Your task to perform on an android device: Clear the cart on amazon.com. Search for lg ultragear on amazon.com, select the first entry, and add it to the cart. Image 0: 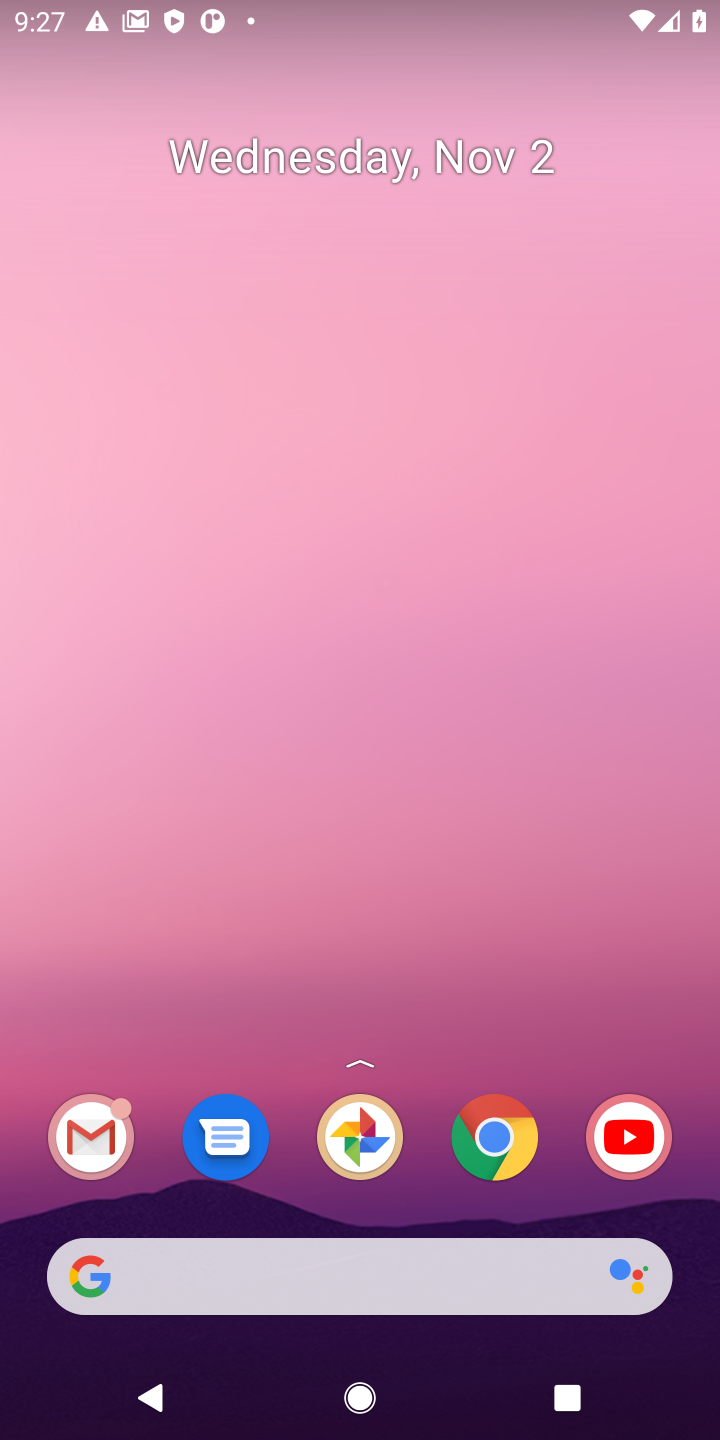
Step 0: click (499, 1134)
Your task to perform on an android device: Clear the cart on amazon.com. Search for lg ultragear on amazon.com, select the first entry, and add it to the cart. Image 1: 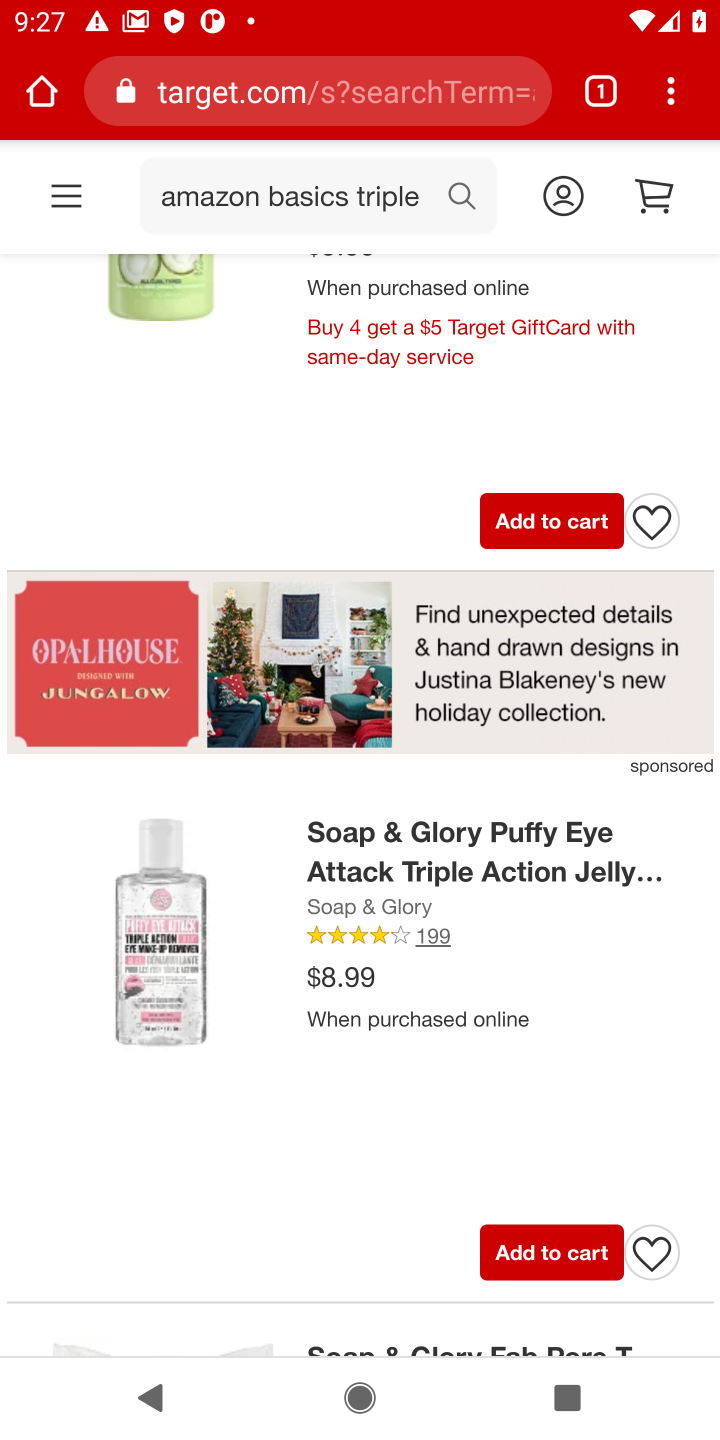
Step 1: click (362, 66)
Your task to perform on an android device: Clear the cart on amazon.com. Search for lg ultragear on amazon.com, select the first entry, and add it to the cart. Image 2: 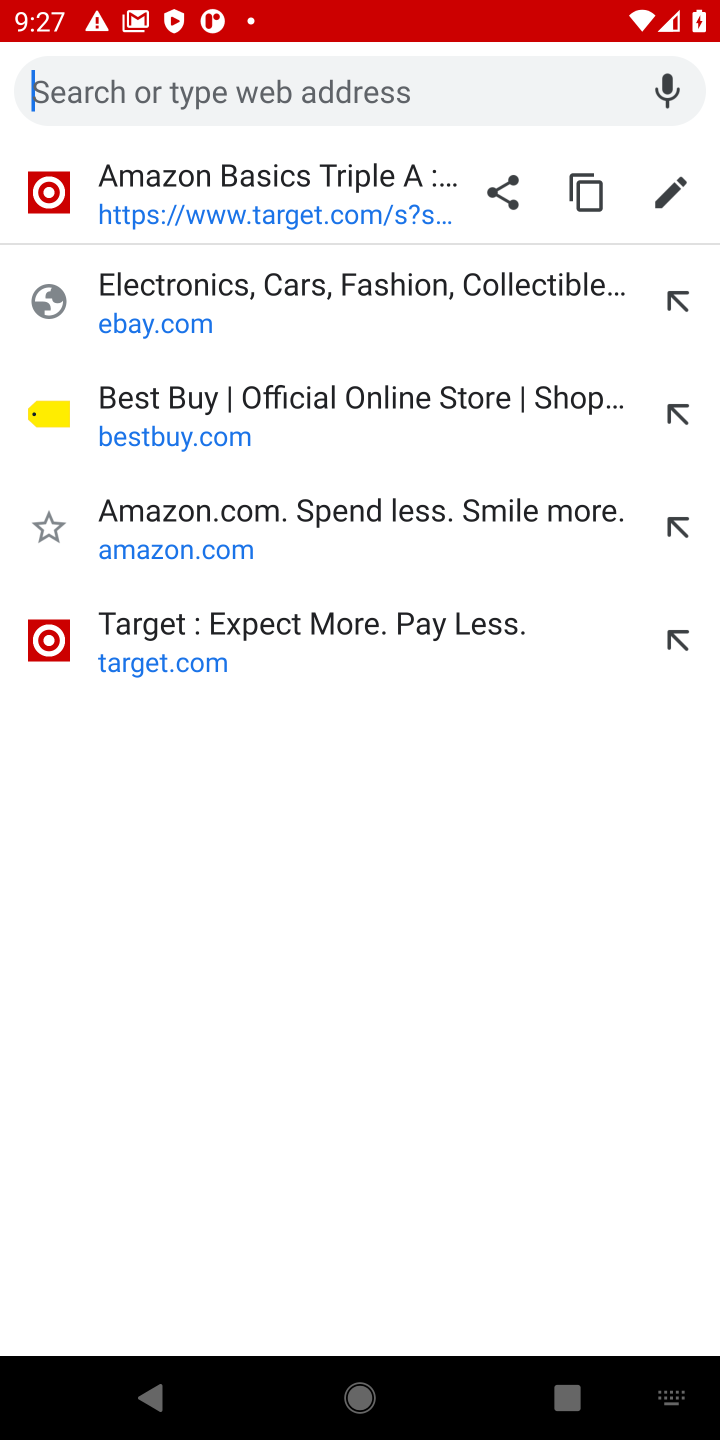
Step 2: type "amazon"
Your task to perform on an android device: Clear the cart on amazon.com. Search for lg ultragear on amazon.com, select the first entry, and add it to the cart. Image 3: 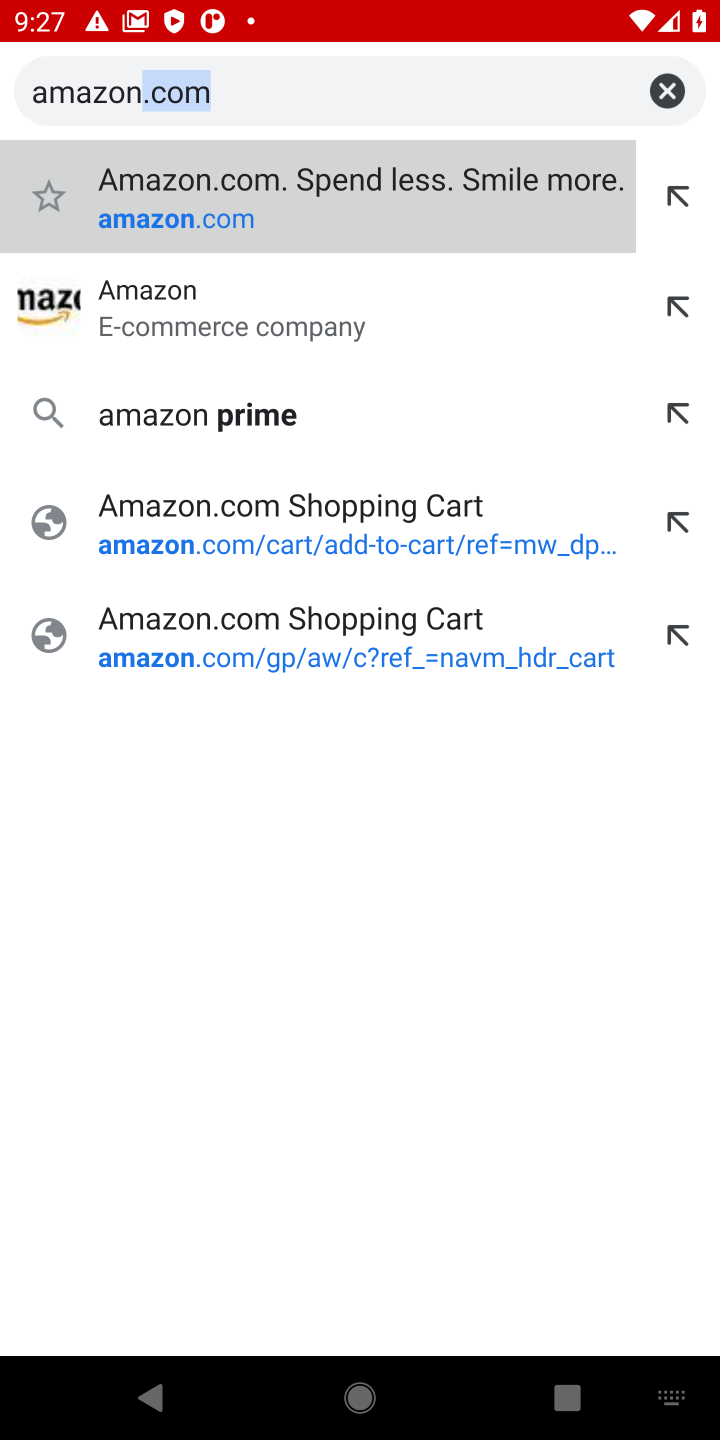
Step 3: click (142, 309)
Your task to perform on an android device: Clear the cart on amazon.com. Search for lg ultragear on amazon.com, select the first entry, and add it to the cart. Image 4: 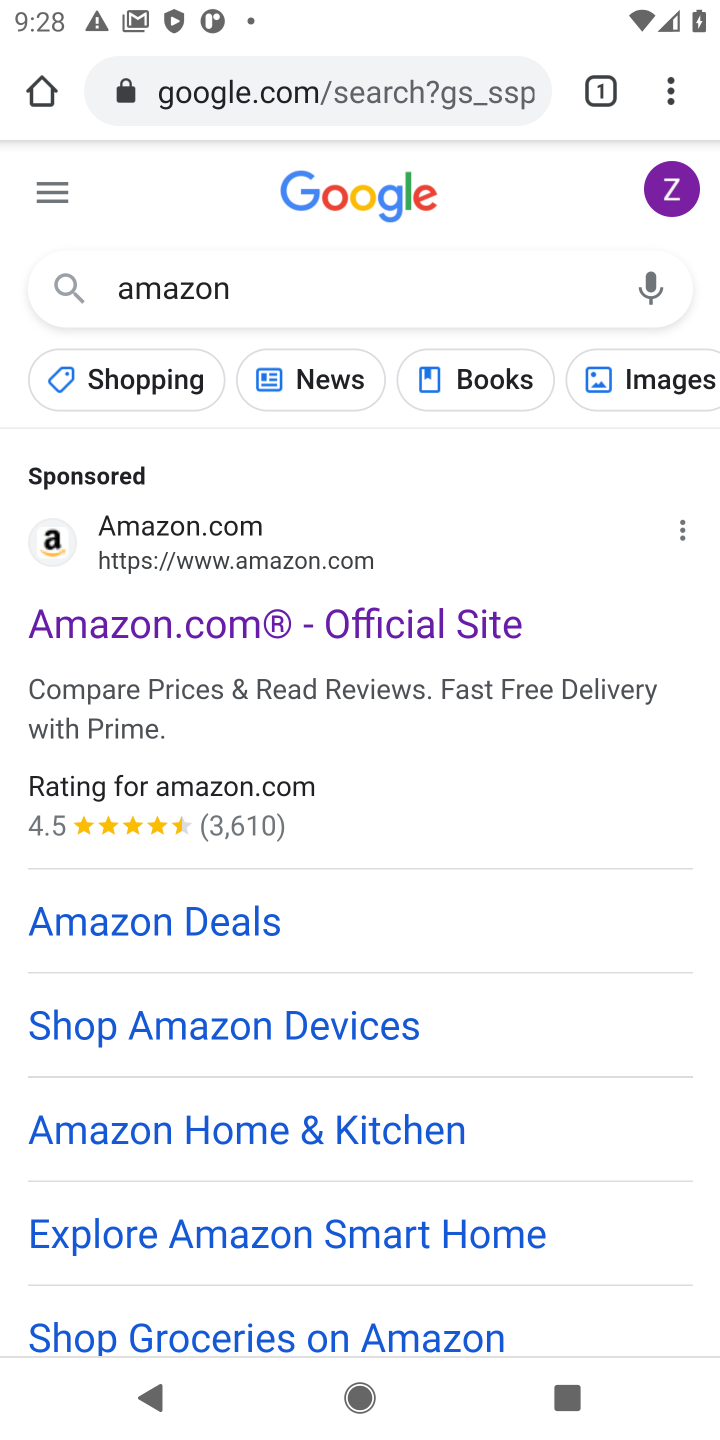
Step 4: click (135, 650)
Your task to perform on an android device: Clear the cart on amazon.com. Search for lg ultragear on amazon.com, select the first entry, and add it to the cart. Image 5: 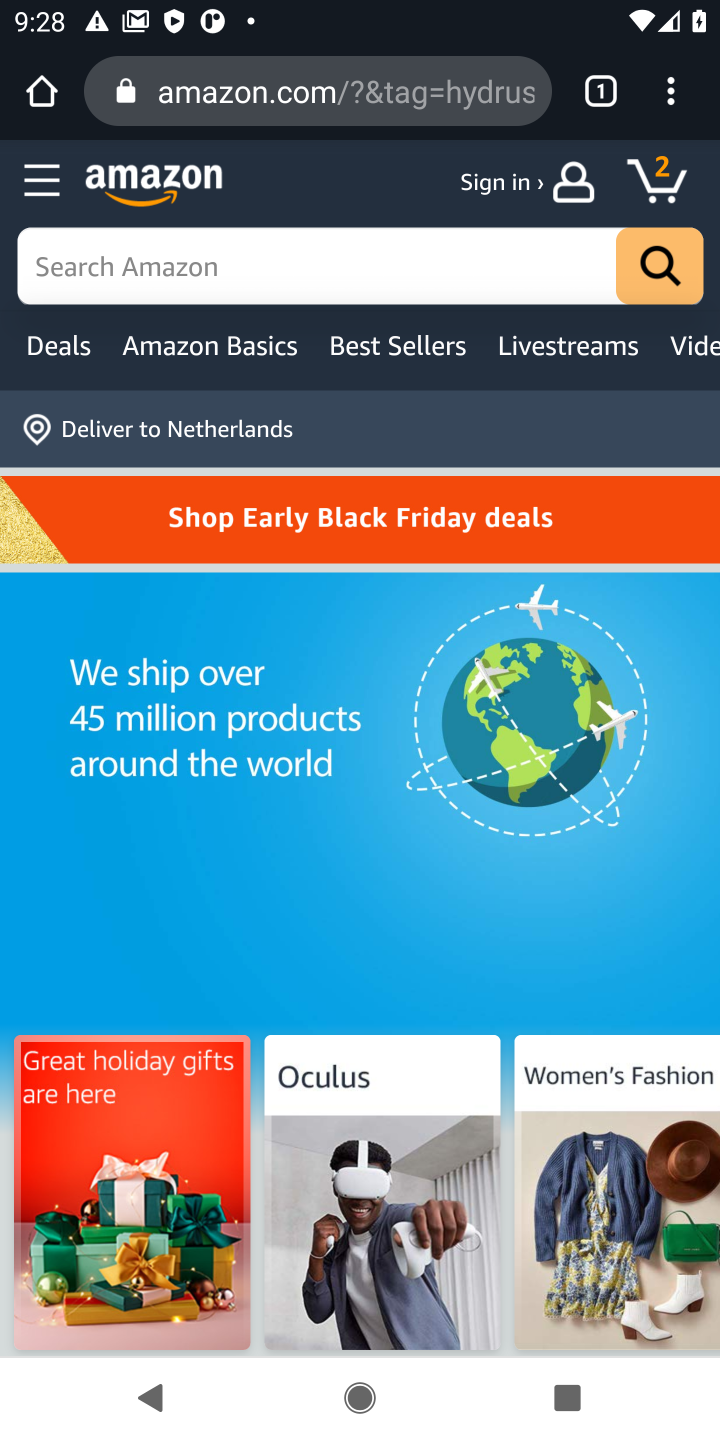
Step 5: click (657, 171)
Your task to perform on an android device: Clear the cart on amazon.com. Search for lg ultragear on amazon.com, select the first entry, and add it to the cart. Image 6: 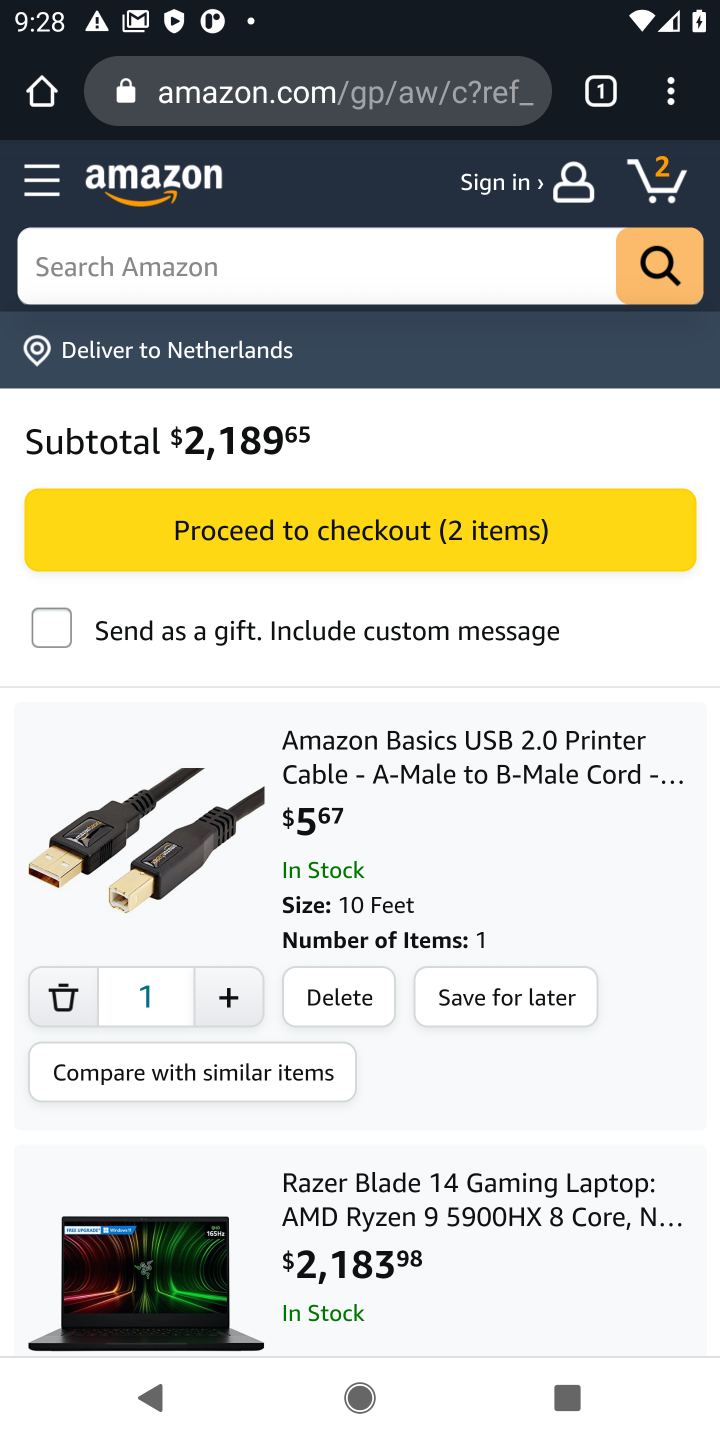
Step 6: click (664, 178)
Your task to perform on an android device: Clear the cart on amazon.com. Search for lg ultragear on amazon.com, select the first entry, and add it to the cart. Image 7: 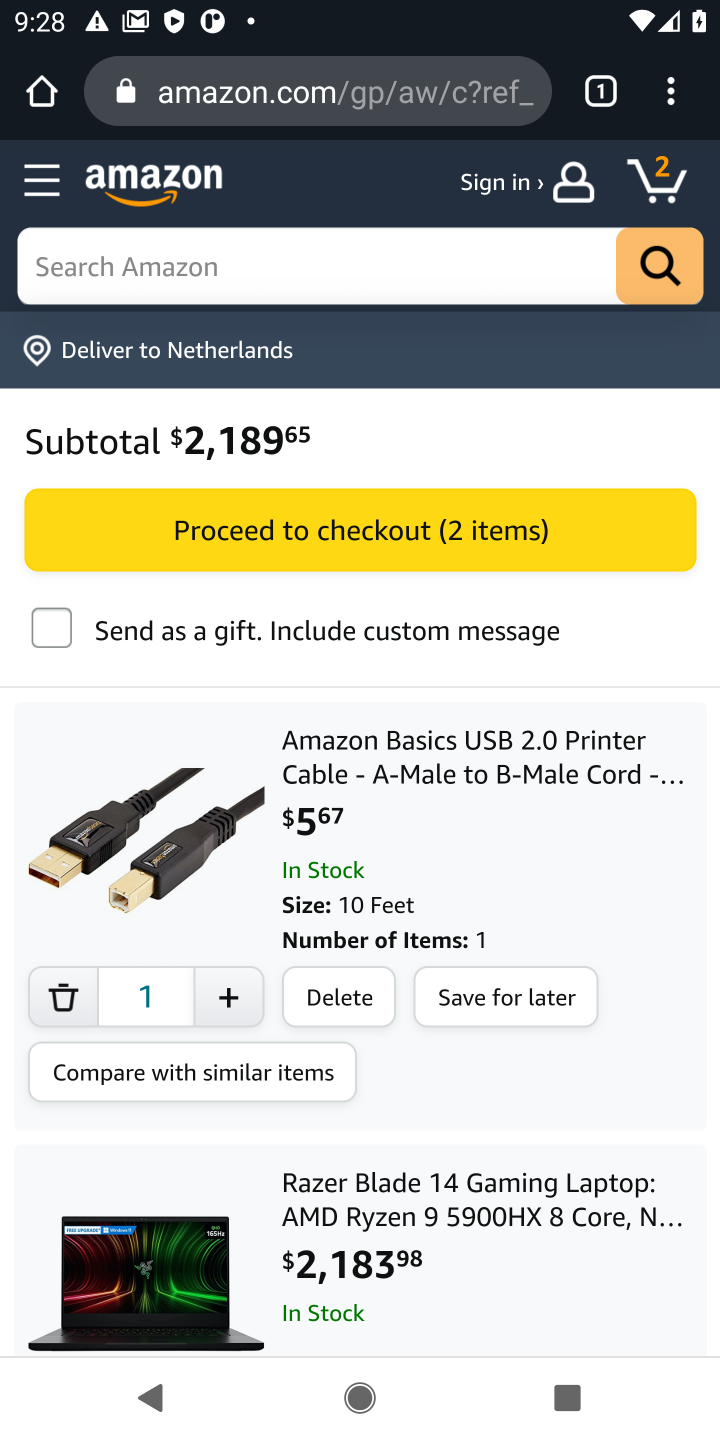
Step 7: click (63, 994)
Your task to perform on an android device: Clear the cart on amazon.com. Search for lg ultragear on amazon.com, select the first entry, and add it to the cart. Image 8: 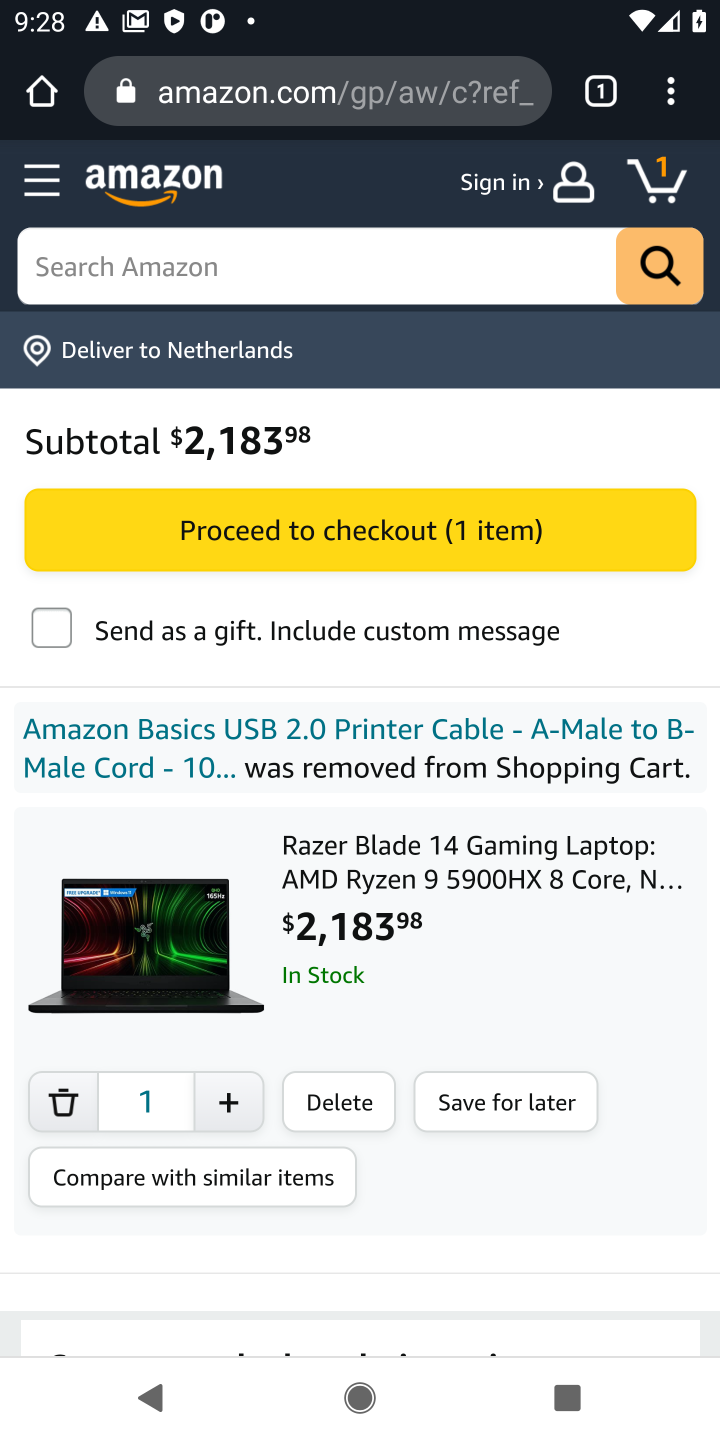
Step 8: click (59, 1093)
Your task to perform on an android device: Clear the cart on amazon.com. Search for lg ultragear on amazon.com, select the first entry, and add it to the cart. Image 9: 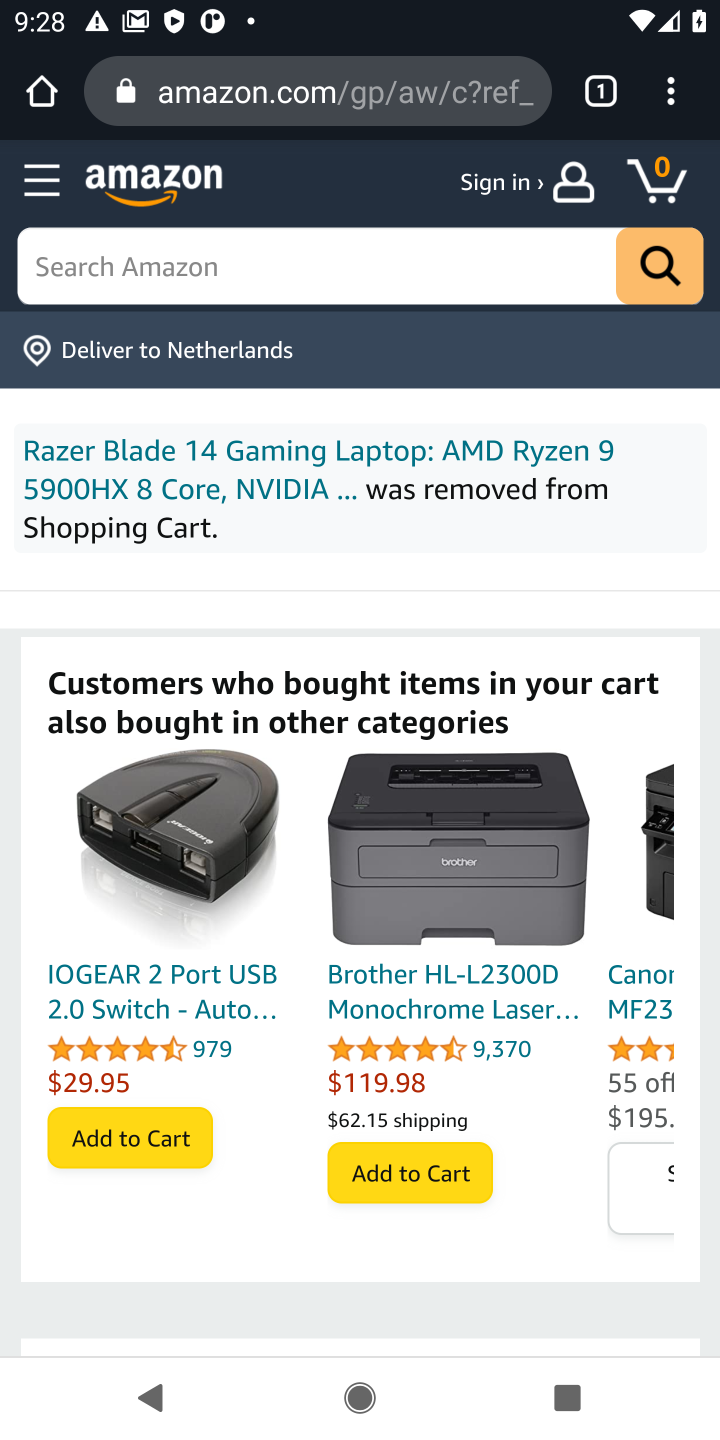
Step 9: click (195, 262)
Your task to perform on an android device: Clear the cart on amazon.com. Search for lg ultragear on amazon.com, select the first entry, and add it to the cart. Image 10: 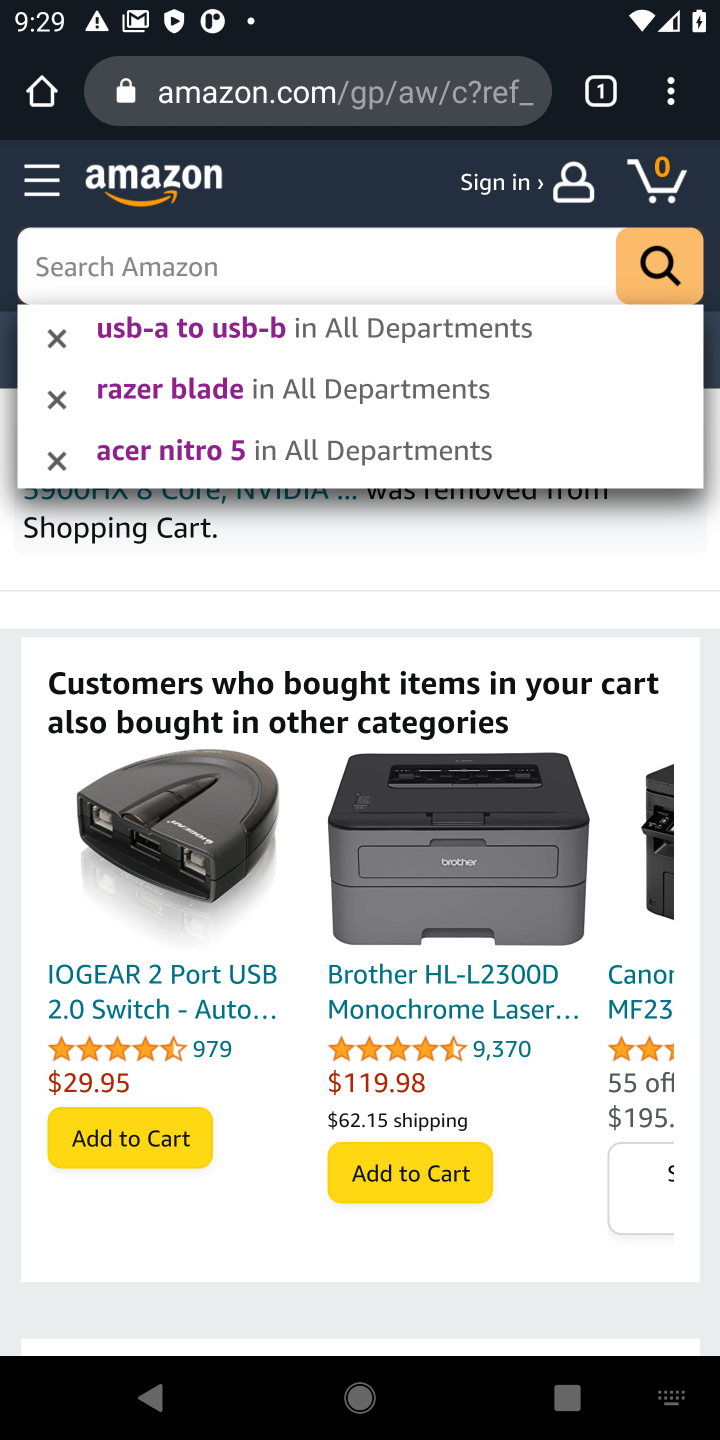
Step 10: type "lg ultragear"
Your task to perform on an android device: Clear the cart on amazon.com. Search for lg ultragear on amazon.com, select the first entry, and add it to the cart. Image 11: 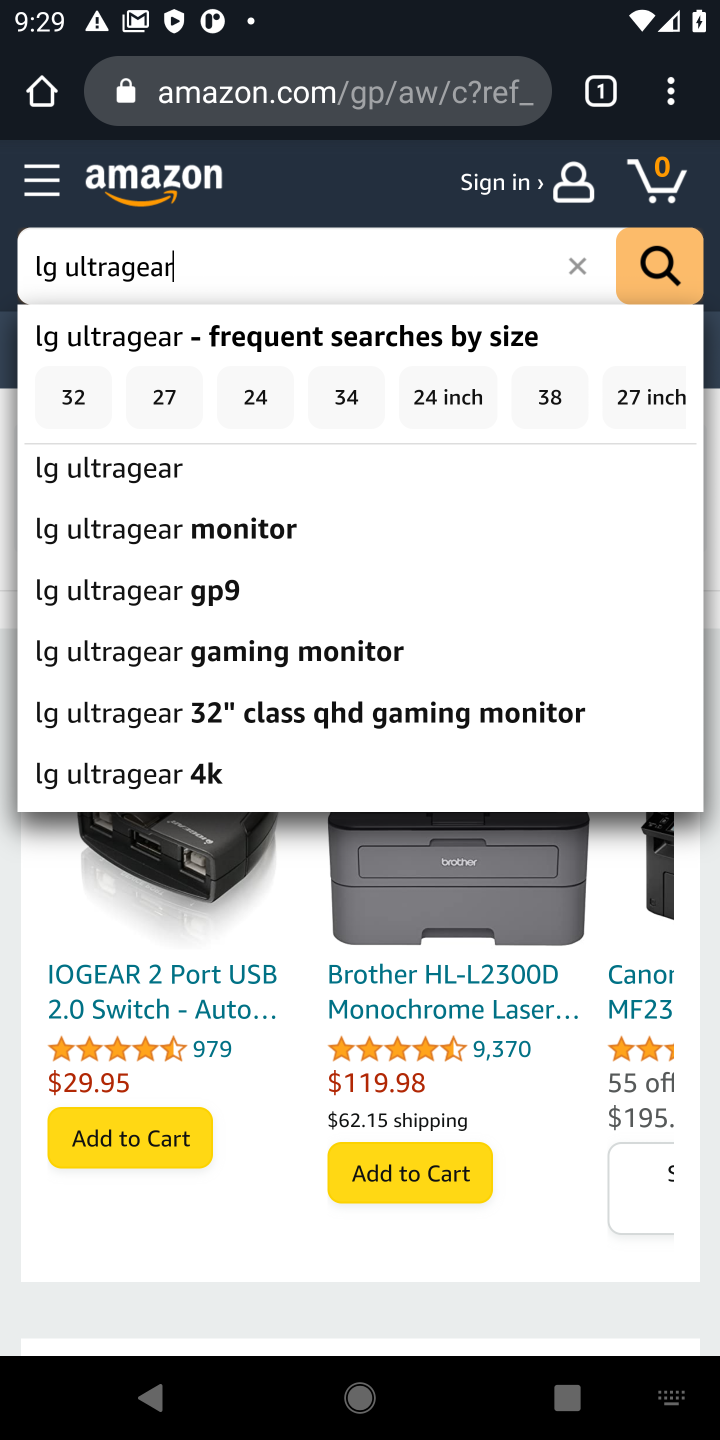
Step 11: click (105, 462)
Your task to perform on an android device: Clear the cart on amazon.com. Search for lg ultragear on amazon.com, select the first entry, and add it to the cart. Image 12: 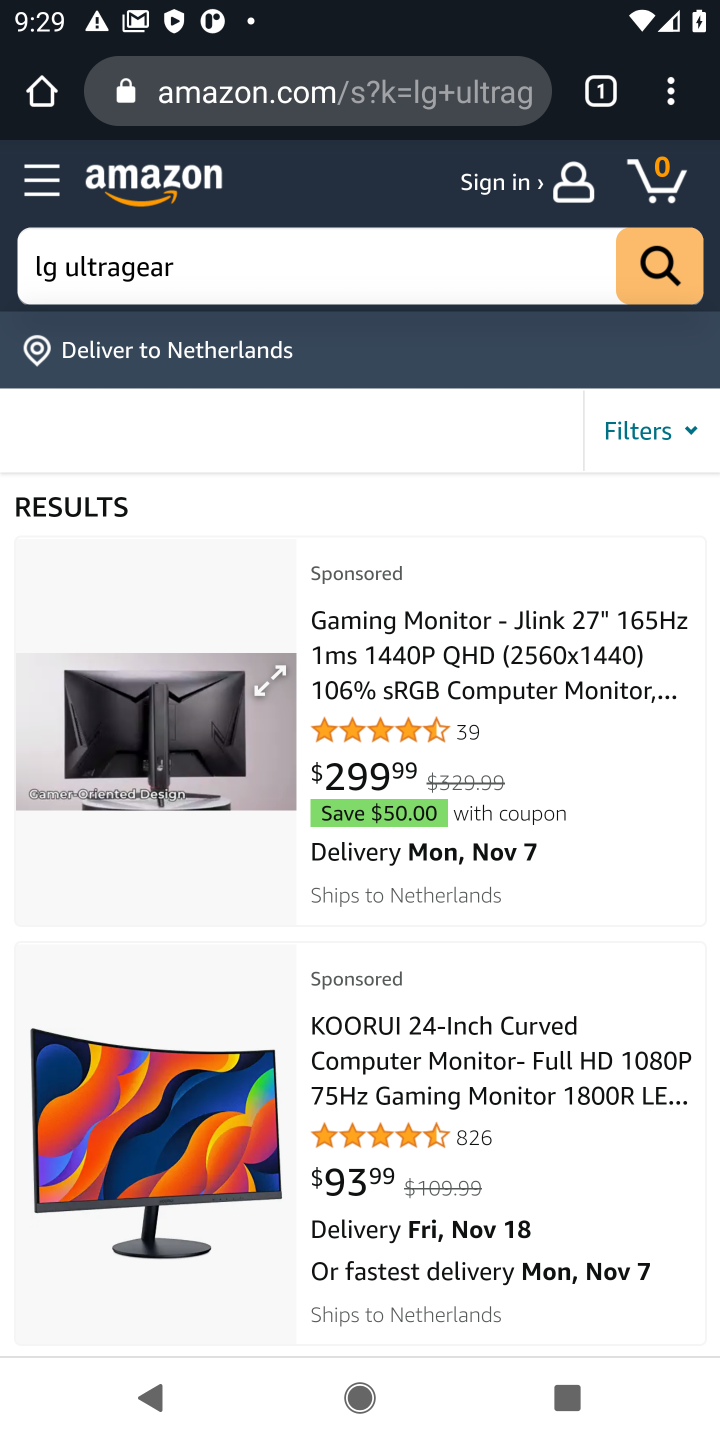
Step 12: drag from (576, 923) to (558, 502)
Your task to perform on an android device: Clear the cart on amazon.com. Search for lg ultragear on amazon.com, select the first entry, and add it to the cart. Image 13: 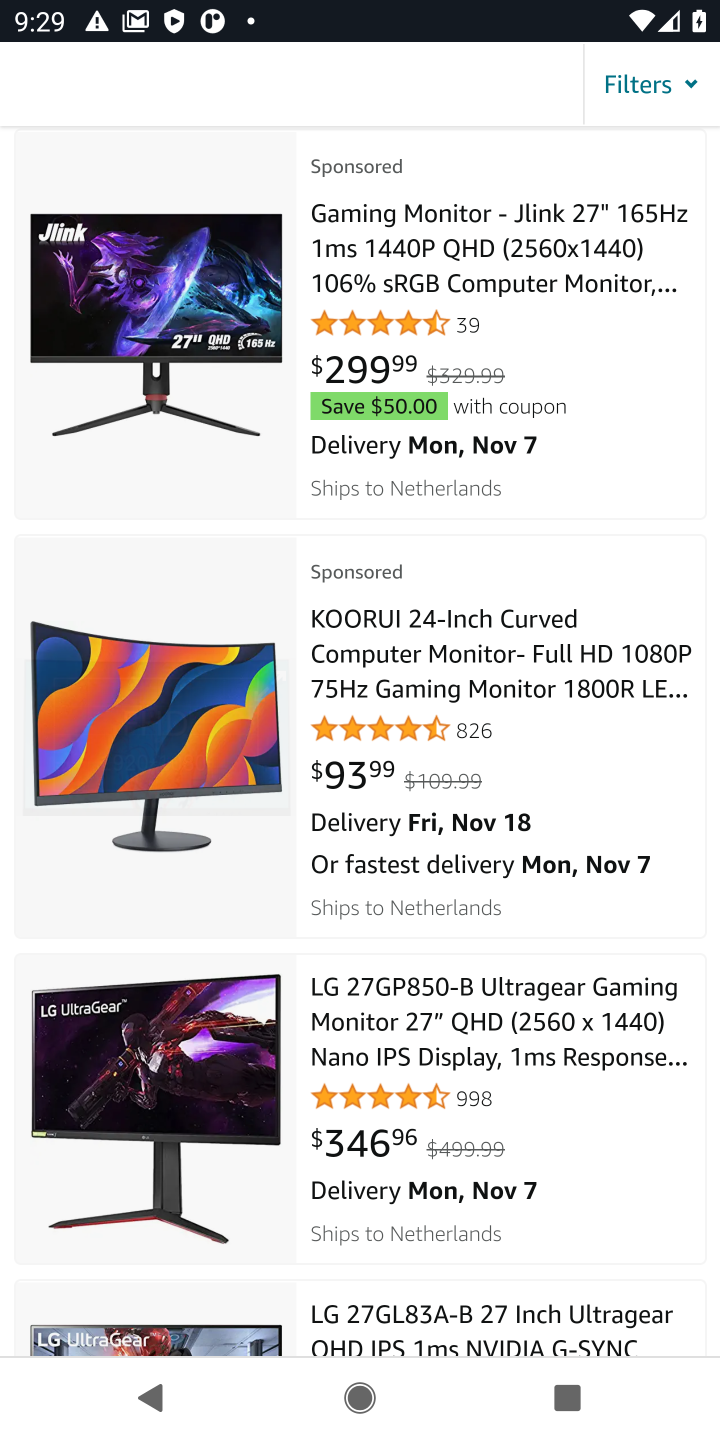
Step 13: drag from (547, 926) to (620, 510)
Your task to perform on an android device: Clear the cart on amazon.com. Search for lg ultragear on amazon.com, select the first entry, and add it to the cart. Image 14: 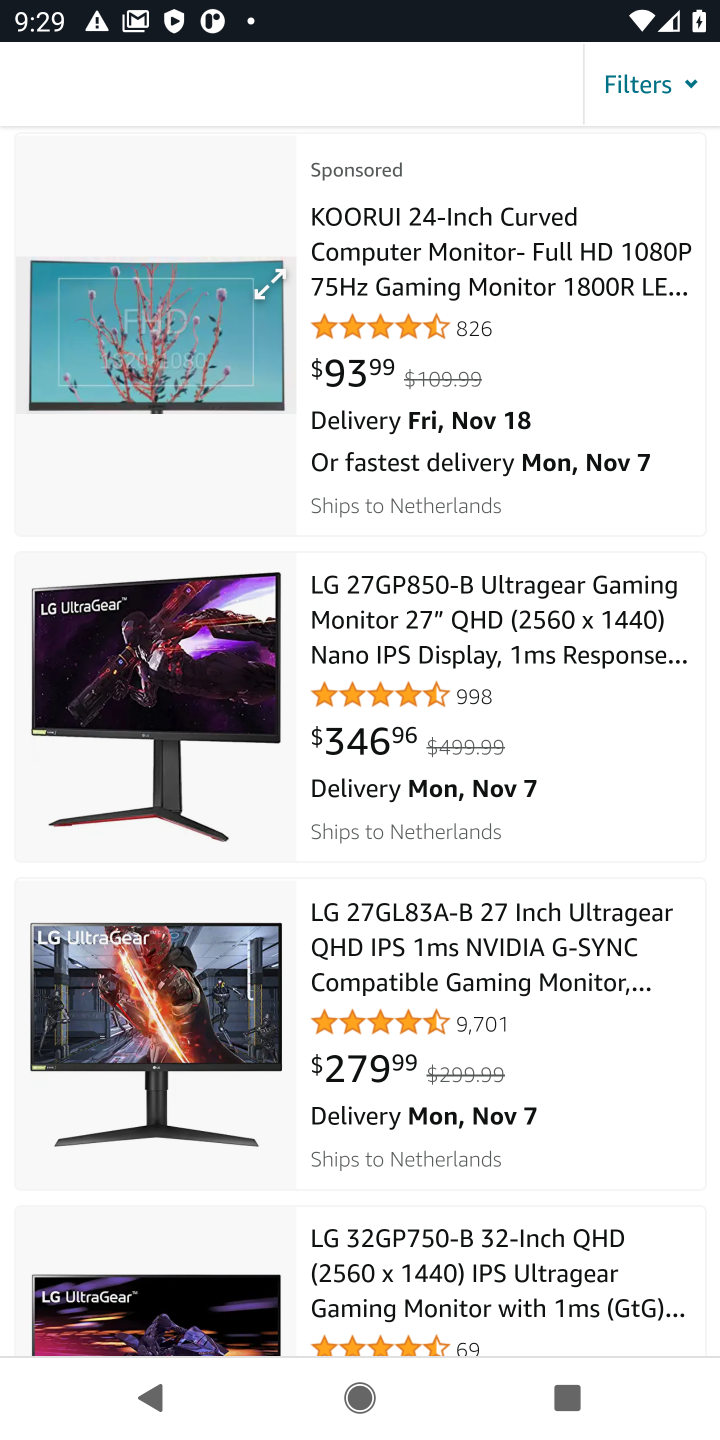
Step 14: drag from (585, 845) to (605, 490)
Your task to perform on an android device: Clear the cart on amazon.com. Search for lg ultragear on amazon.com, select the first entry, and add it to the cart. Image 15: 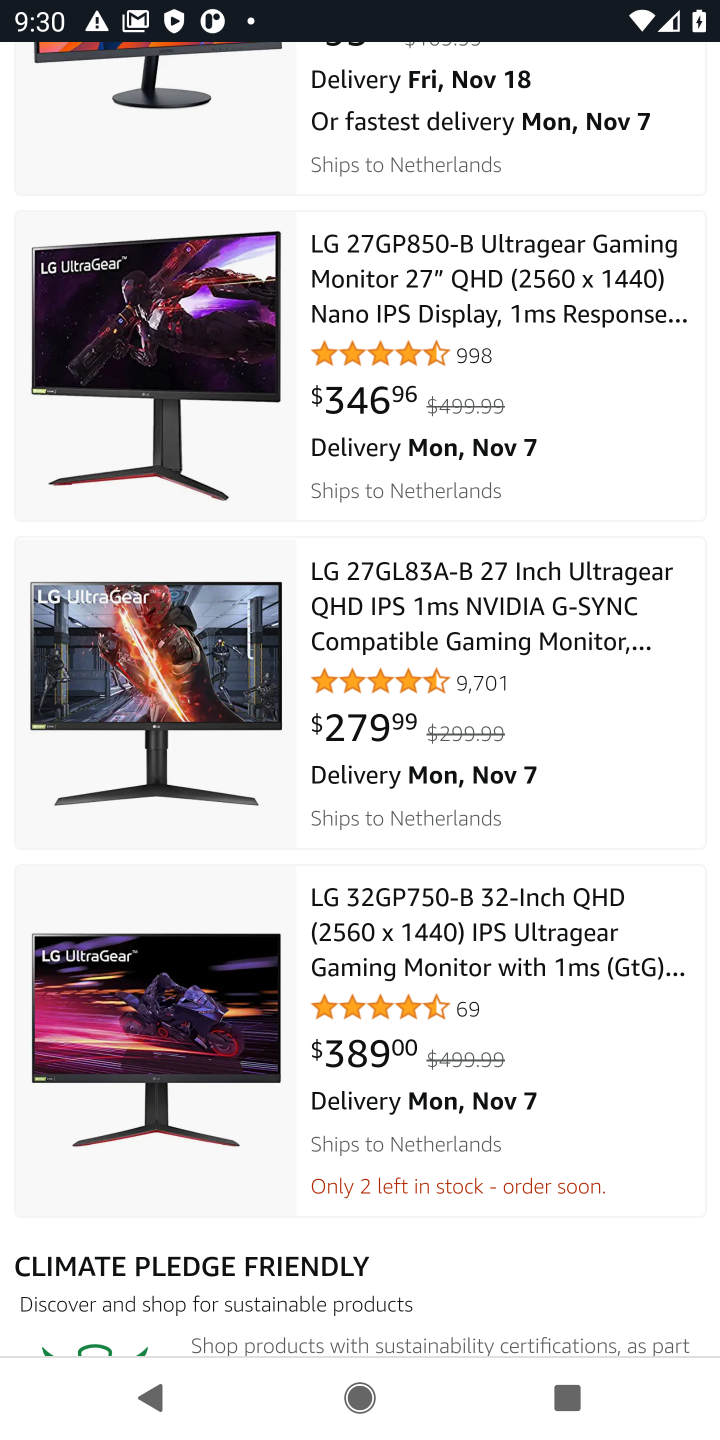
Step 15: drag from (609, 1203) to (569, 323)
Your task to perform on an android device: Clear the cart on amazon.com. Search for lg ultragear on amazon.com, select the first entry, and add it to the cart. Image 16: 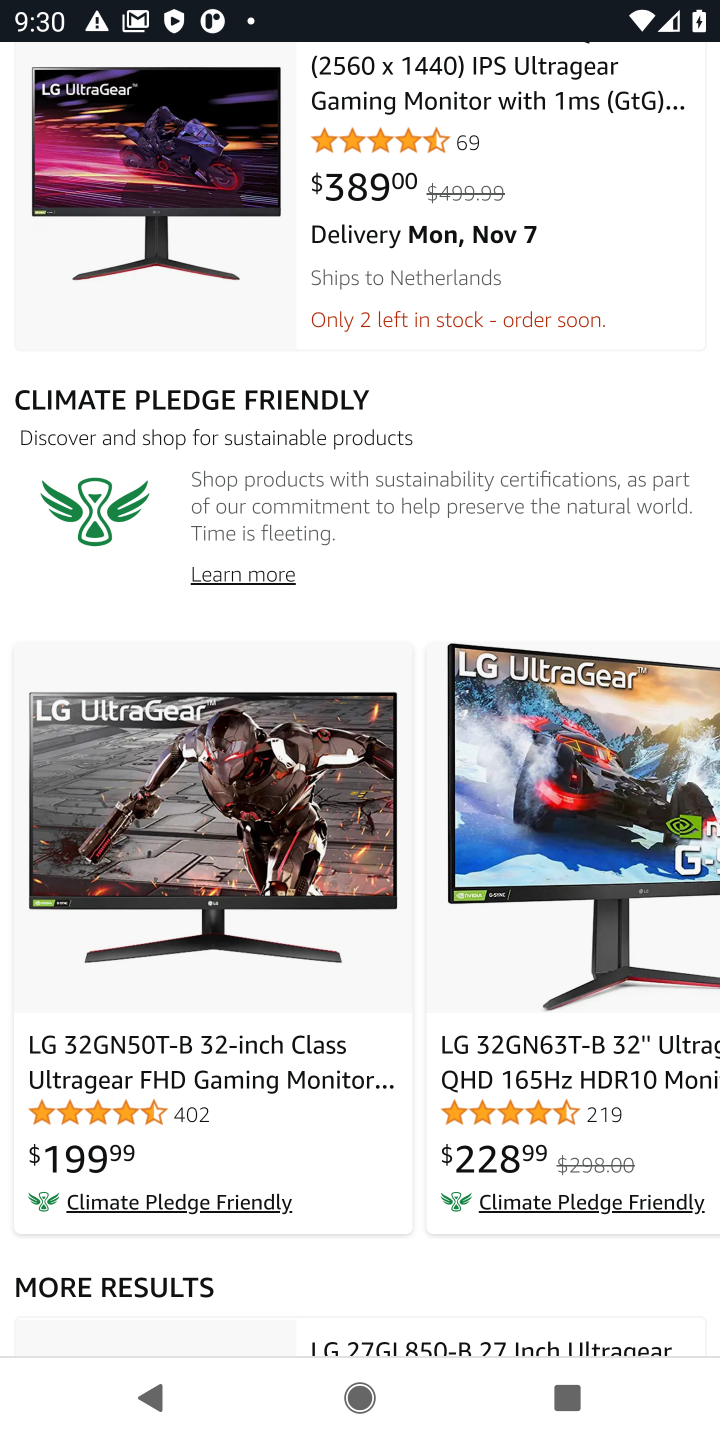
Step 16: drag from (402, 276) to (360, 723)
Your task to perform on an android device: Clear the cart on amazon.com. Search for lg ultragear on amazon.com, select the first entry, and add it to the cart. Image 17: 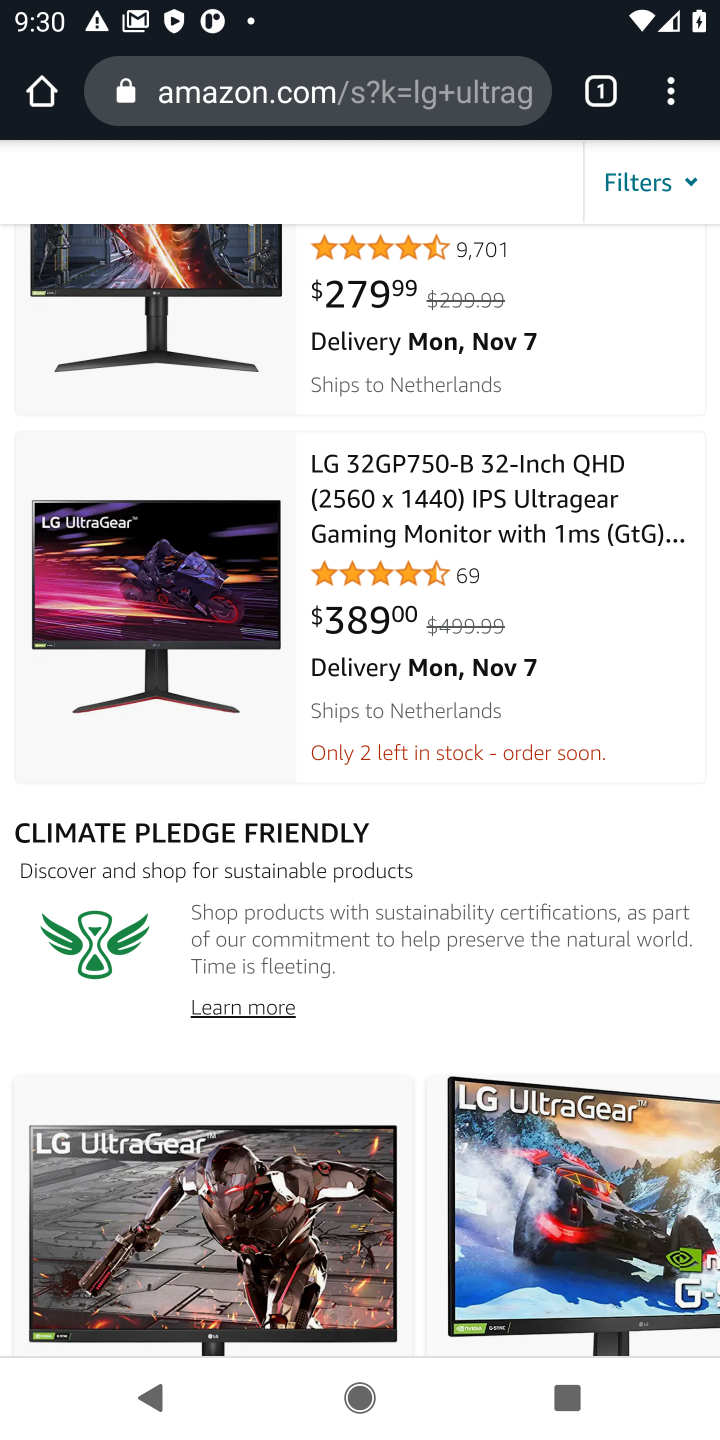
Step 17: drag from (388, 423) to (356, 850)
Your task to perform on an android device: Clear the cart on amazon.com. Search for lg ultragear on amazon.com, select the first entry, and add it to the cart. Image 18: 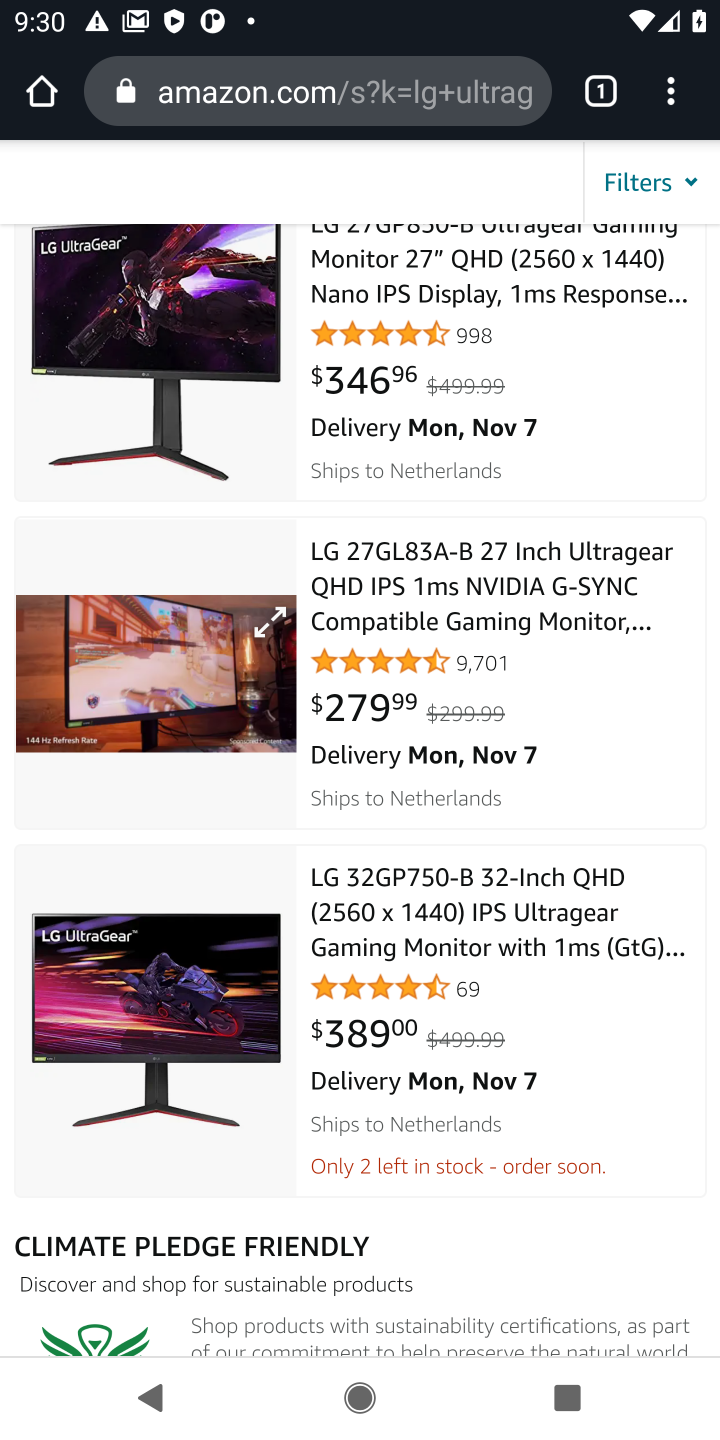
Step 18: click (380, 587)
Your task to perform on an android device: Clear the cart on amazon.com. Search for lg ultragear on amazon.com, select the first entry, and add it to the cart. Image 19: 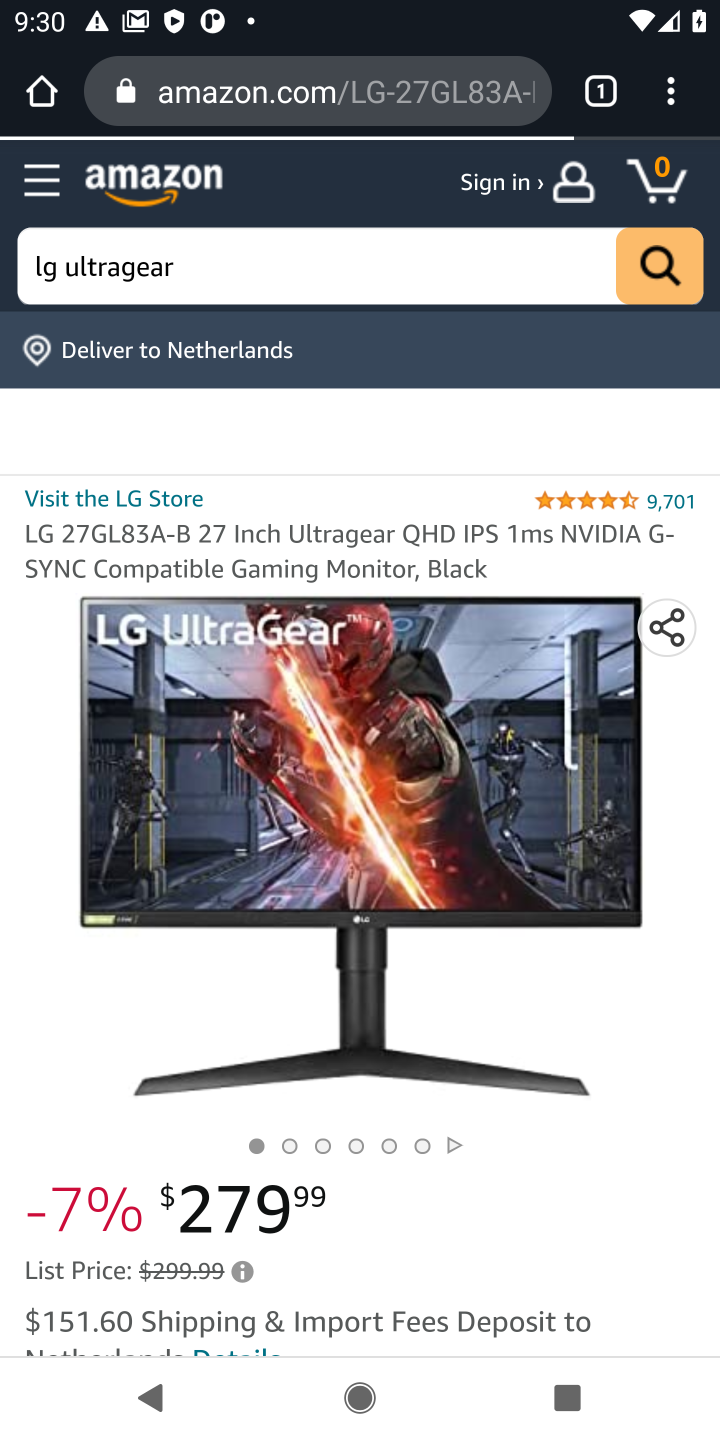
Step 19: drag from (502, 1282) to (460, 617)
Your task to perform on an android device: Clear the cart on amazon.com. Search for lg ultragear on amazon.com, select the first entry, and add it to the cart. Image 20: 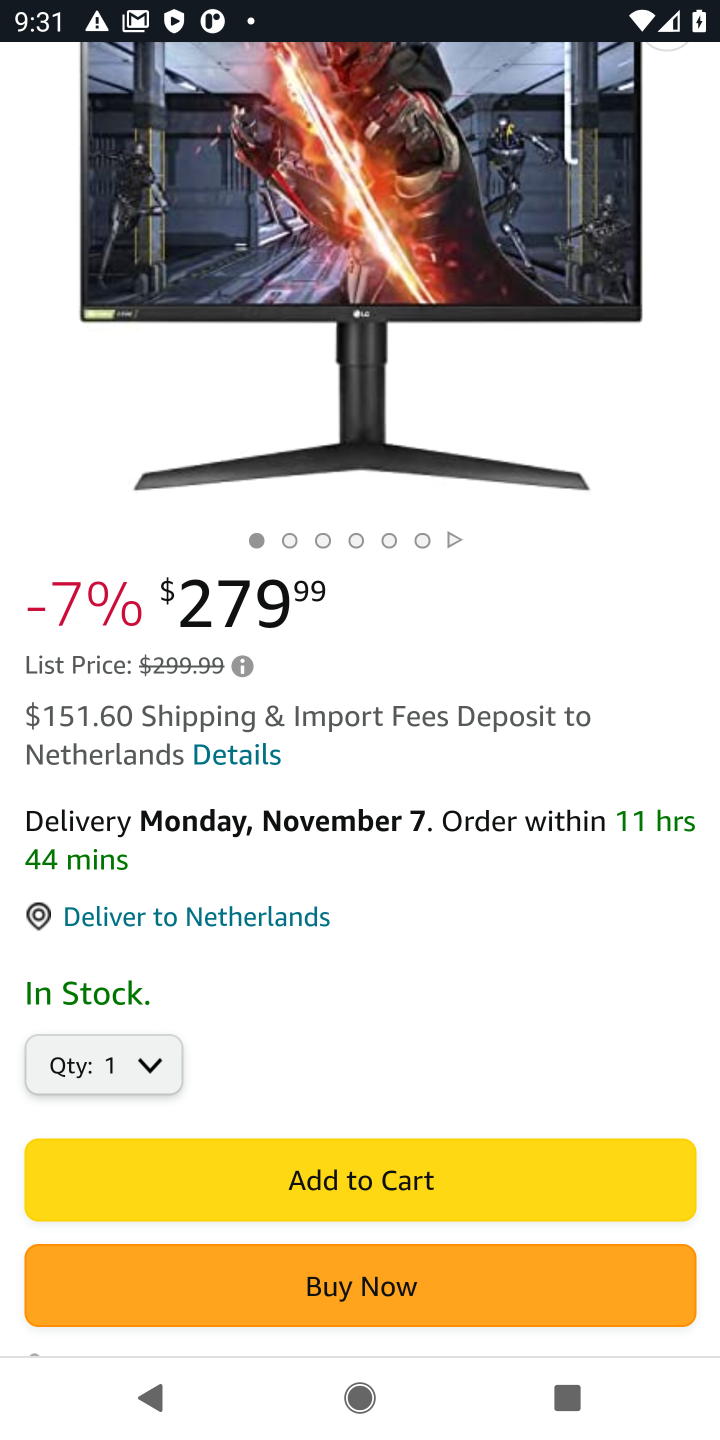
Step 20: click (339, 1172)
Your task to perform on an android device: Clear the cart on amazon.com. Search for lg ultragear on amazon.com, select the first entry, and add it to the cart. Image 21: 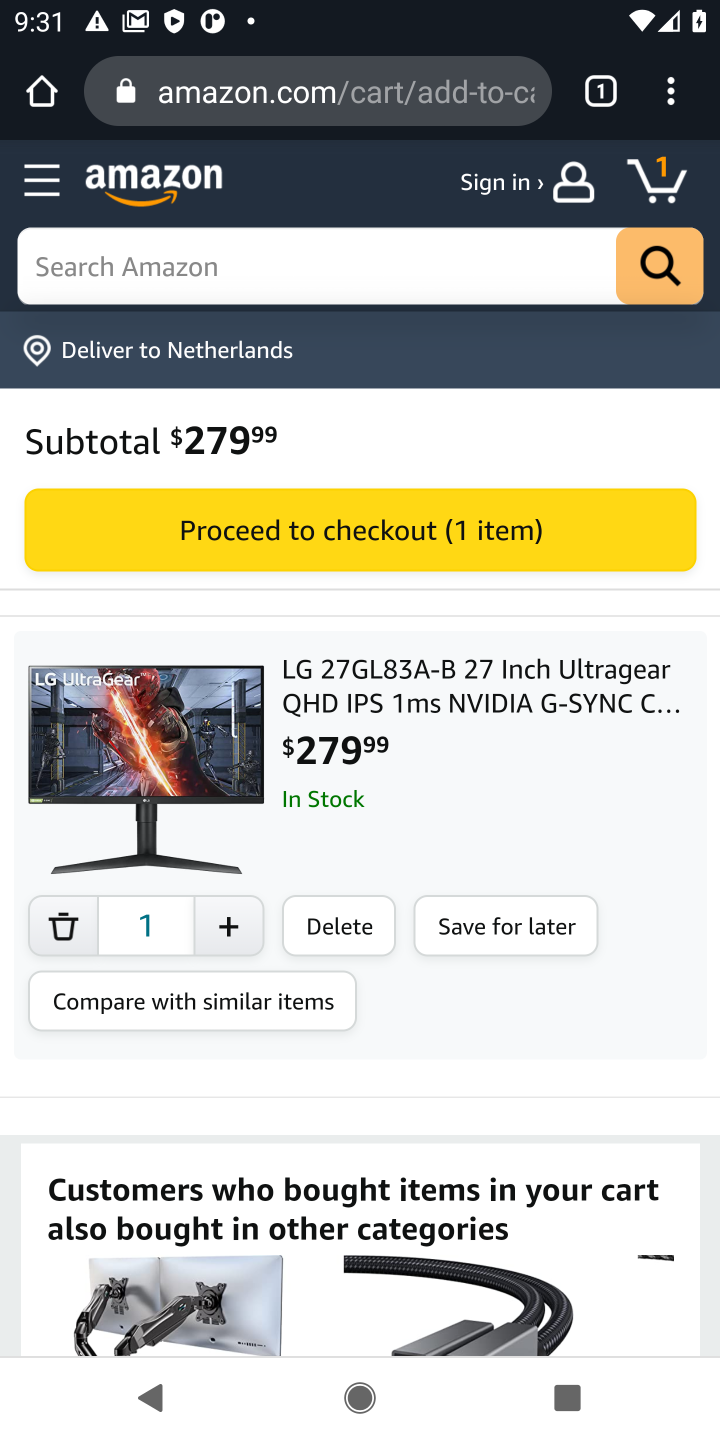
Step 21: task complete